Your task to perform on an android device: What is the news today? Image 0: 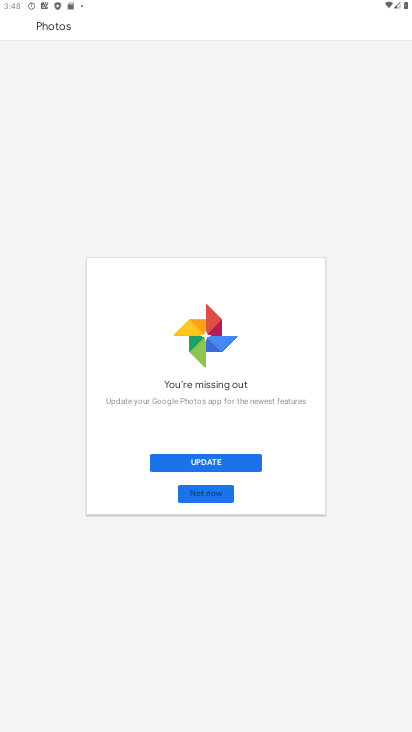
Step 0: press home button
Your task to perform on an android device: What is the news today? Image 1: 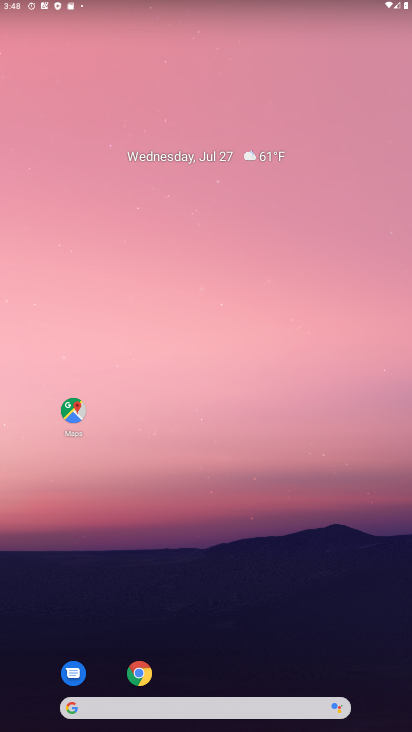
Step 1: click (91, 707)
Your task to perform on an android device: What is the news today? Image 2: 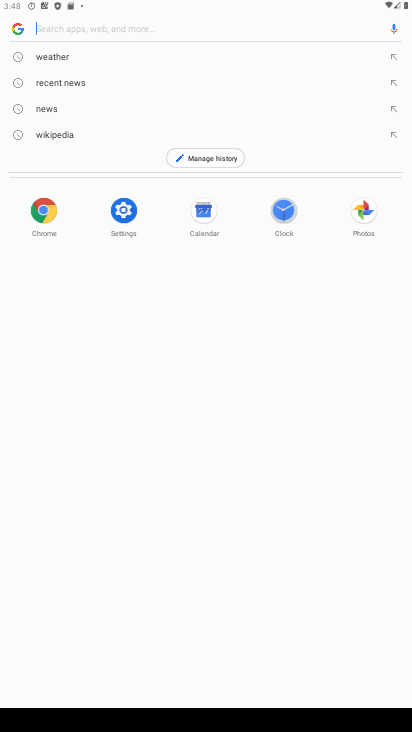
Step 2: type "What is the news today?"
Your task to perform on an android device: What is the news today? Image 3: 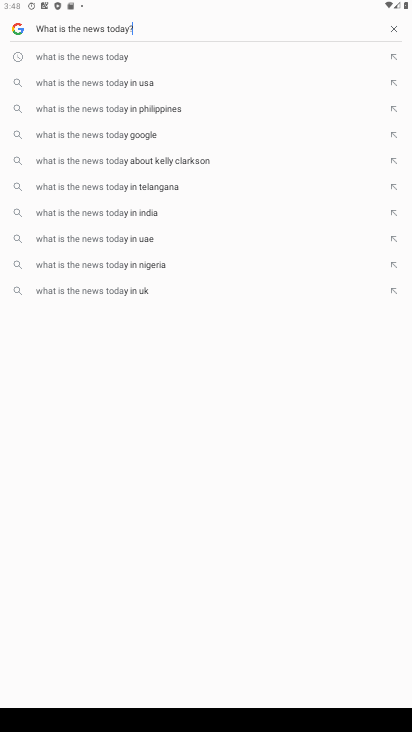
Step 3: type ""
Your task to perform on an android device: What is the news today? Image 4: 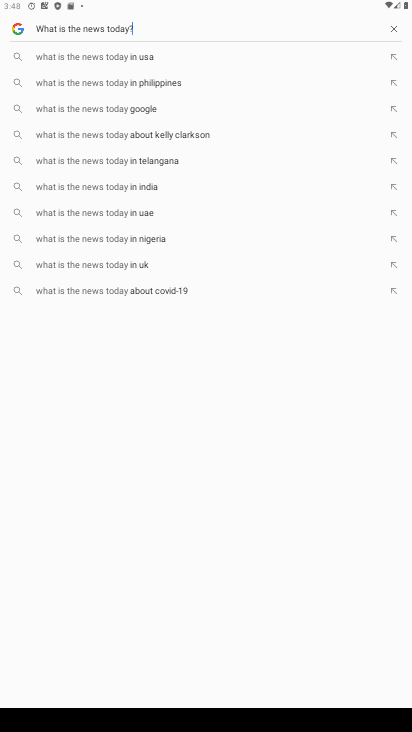
Step 4: task complete